Your task to perform on an android device: turn off priority inbox in the gmail app Image 0: 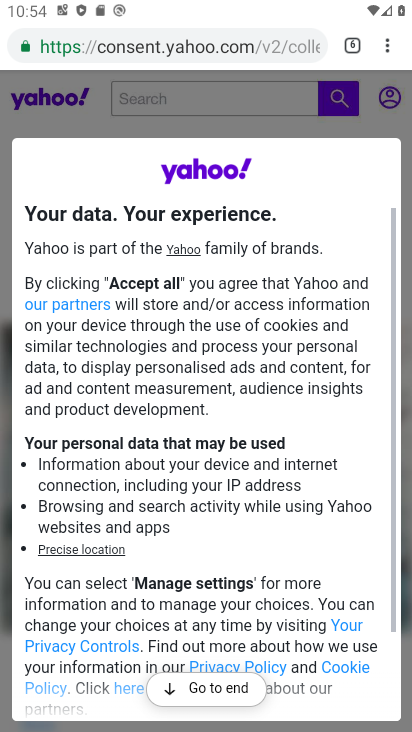
Step 0: press home button
Your task to perform on an android device: turn off priority inbox in the gmail app Image 1: 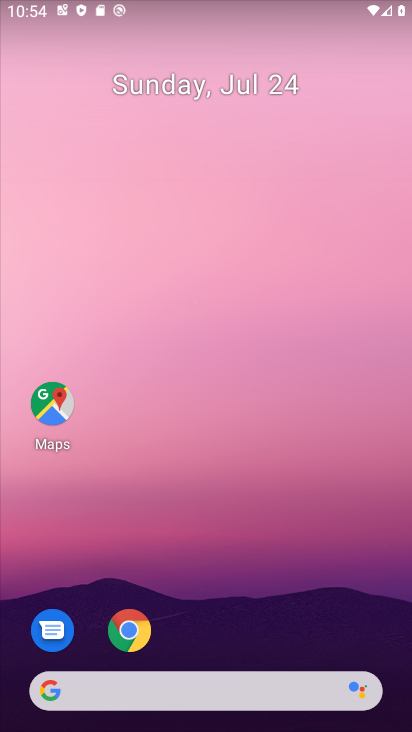
Step 1: drag from (197, 657) to (196, 369)
Your task to perform on an android device: turn off priority inbox in the gmail app Image 2: 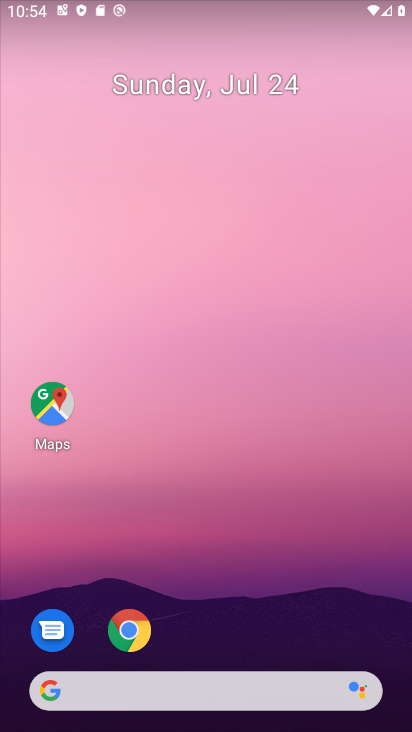
Step 2: drag from (236, 598) to (165, 75)
Your task to perform on an android device: turn off priority inbox in the gmail app Image 3: 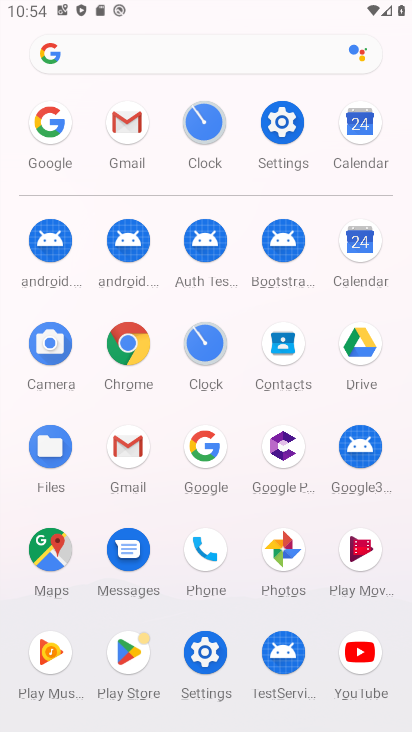
Step 3: click (128, 151)
Your task to perform on an android device: turn off priority inbox in the gmail app Image 4: 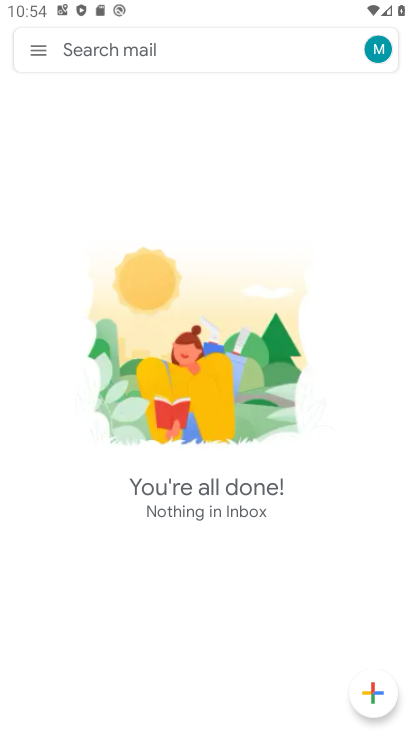
Step 4: click (37, 56)
Your task to perform on an android device: turn off priority inbox in the gmail app Image 5: 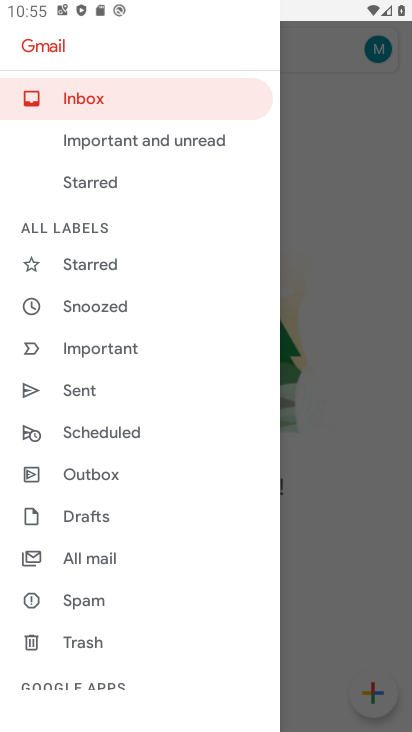
Step 5: drag from (82, 621) to (93, 168)
Your task to perform on an android device: turn off priority inbox in the gmail app Image 6: 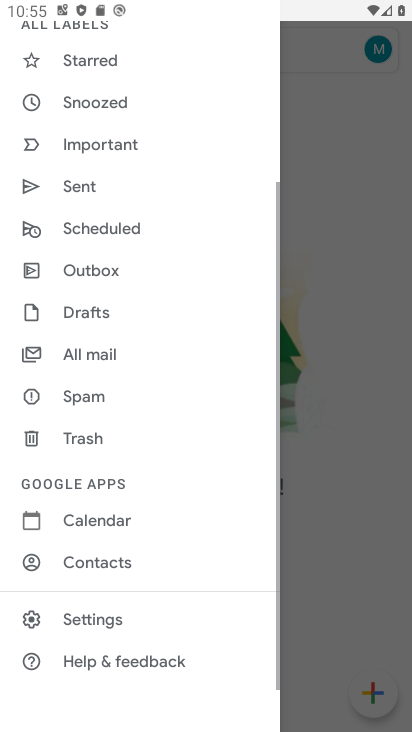
Step 6: click (117, 623)
Your task to perform on an android device: turn off priority inbox in the gmail app Image 7: 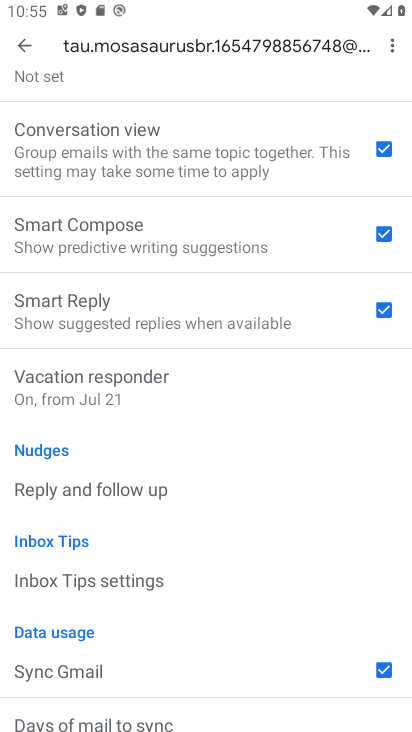
Step 7: drag from (123, 172) to (160, 540)
Your task to perform on an android device: turn off priority inbox in the gmail app Image 8: 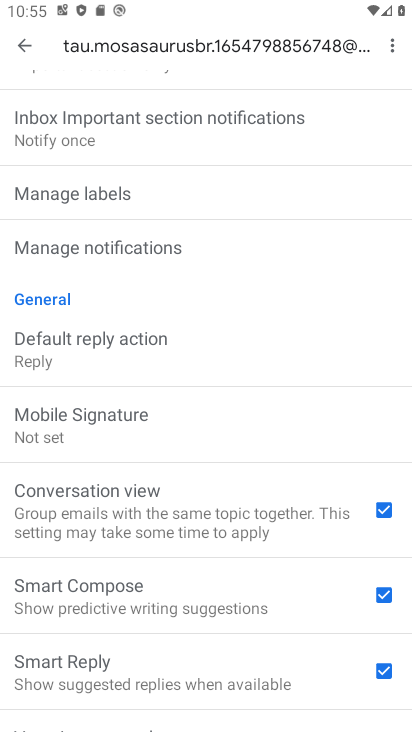
Step 8: drag from (110, 202) to (179, 600)
Your task to perform on an android device: turn off priority inbox in the gmail app Image 9: 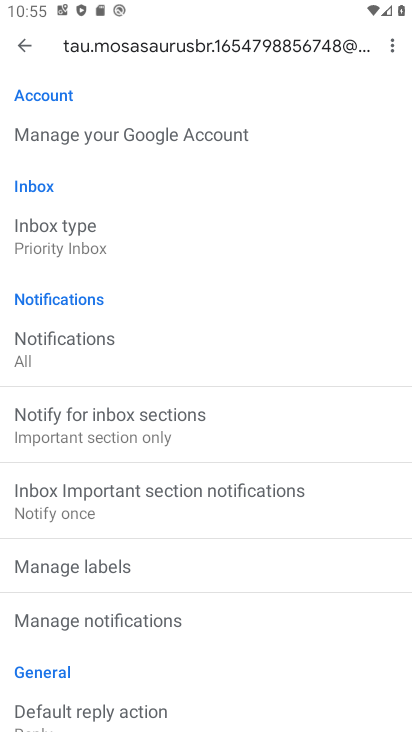
Step 9: click (125, 257)
Your task to perform on an android device: turn off priority inbox in the gmail app Image 10: 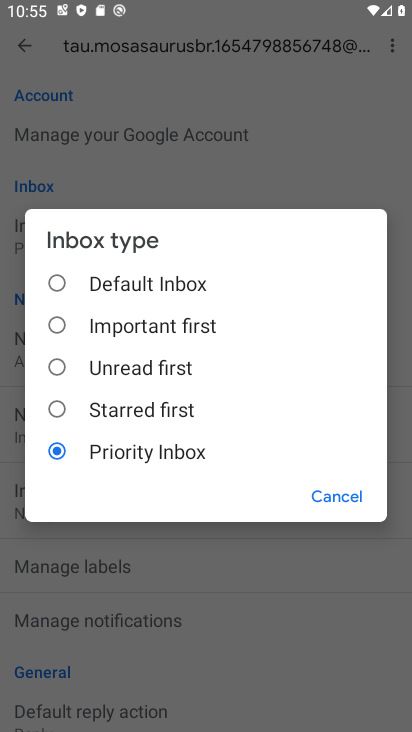
Step 10: click (131, 274)
Your task to perform on an android device: turn off priority inbox in the gmail app Image 11: 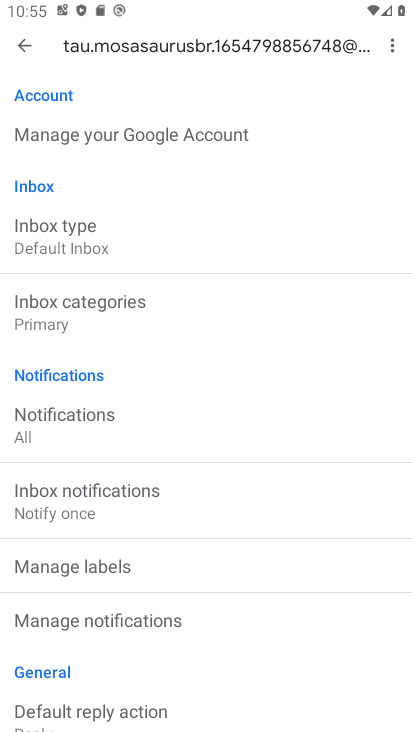
Step 11: task complete